Your task to perform on an android device: Open privacy settings Image 0: 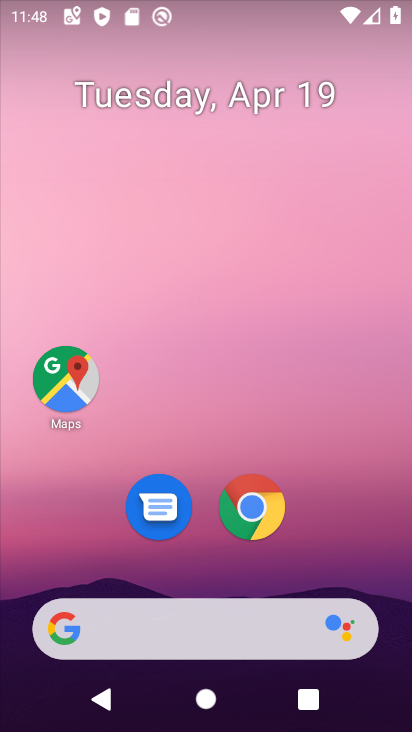
Step 0: drag from (201, 560) to (255, 31)
Your task to perform on an android device: Open privacy settings Image 1: 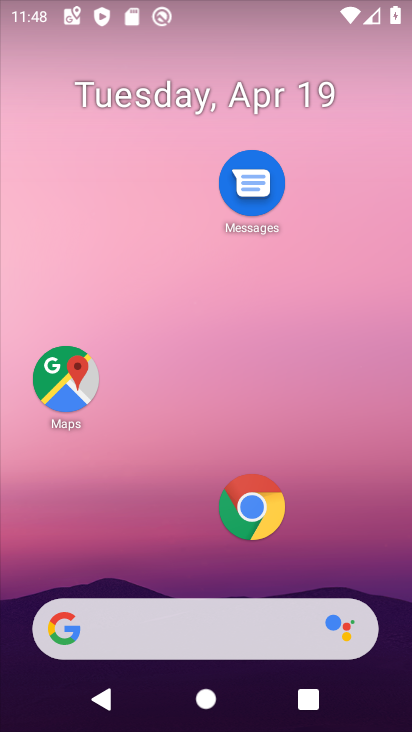
Step 1: drag from (171, 555) to (203, 54)
Your task to perform on an android device: Open privacy settings Image 2: 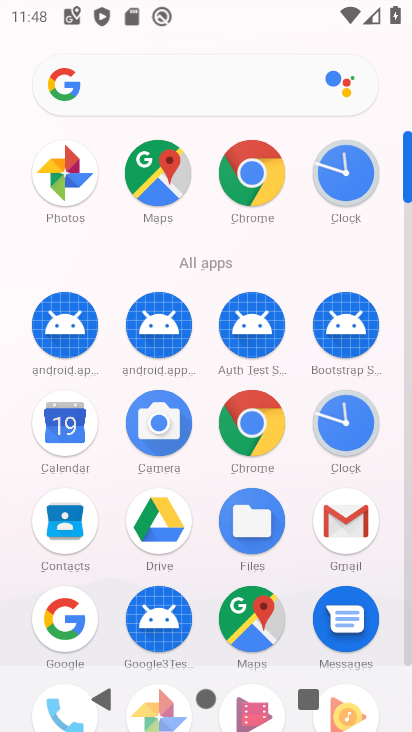
Step 2: drag from (301, 577) to (334, 259)
Your task to perform on an android device: Open privacy settings Image 3: 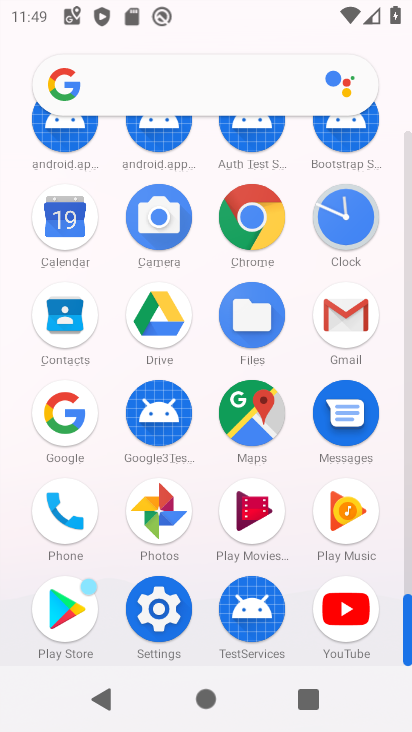
Step 3: click (158, 615)
Your task to perform on an android device: Open privacy settings Image 4: 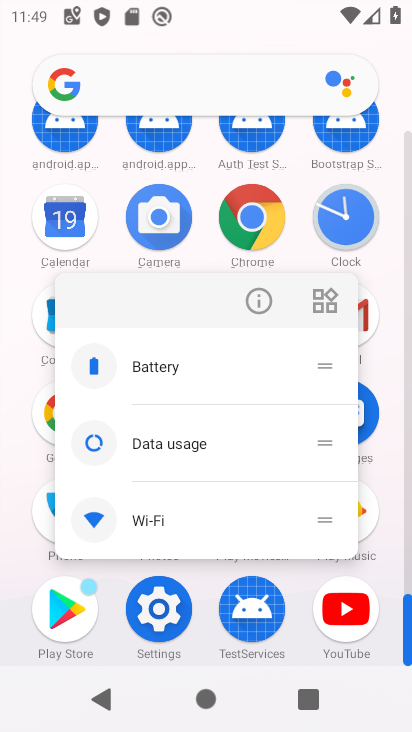
Step 4: click (158, 615)
Your task to perform on an android device: Open privacy settings Image 5: 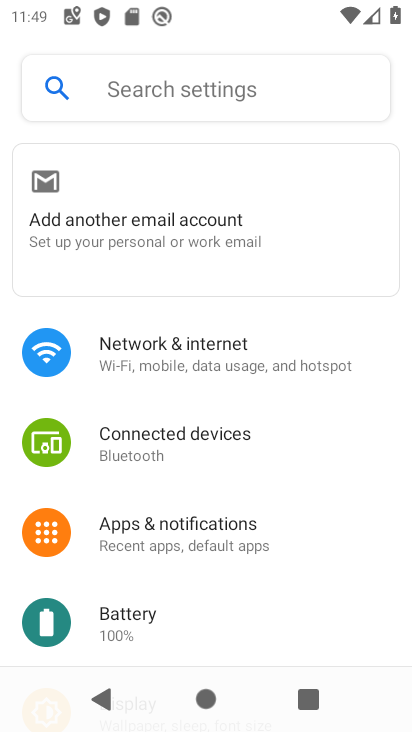
Step 5: drag from (183, 594) to (207, 469)
Your task to perform on an android device: Open privacy settings Image 6: 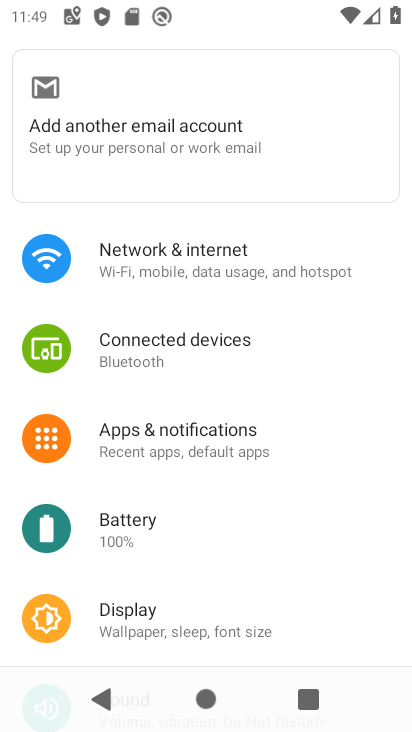
Step 6: drag from (203, 564) to (217, 478)
Your task to perform on an android device: Open privacy settings Image 7: 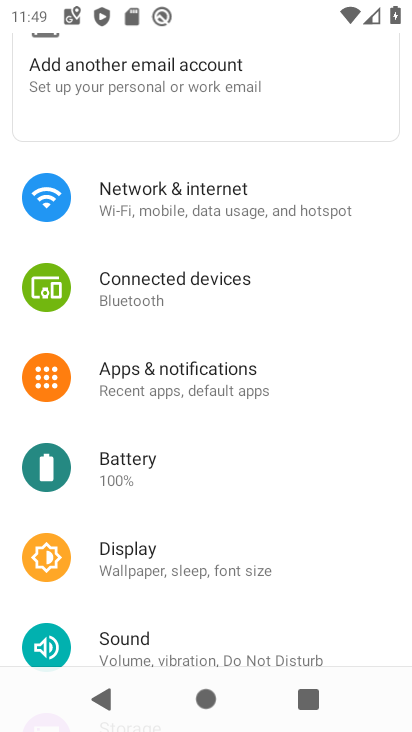
Step 7: drag from (197, 603) to (224, 495)
Your task to perform on an android device: Open privacy settings Image 8: 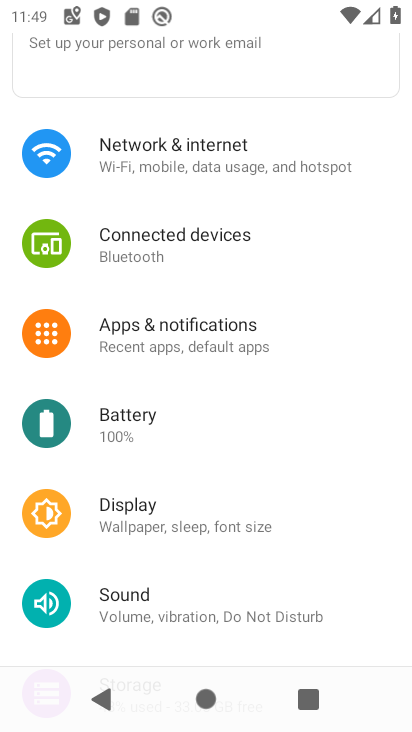
Step 8: drag from (197, 581) to (231, 451)
Your task to perform on an android device: Open privacy settings Image 9: 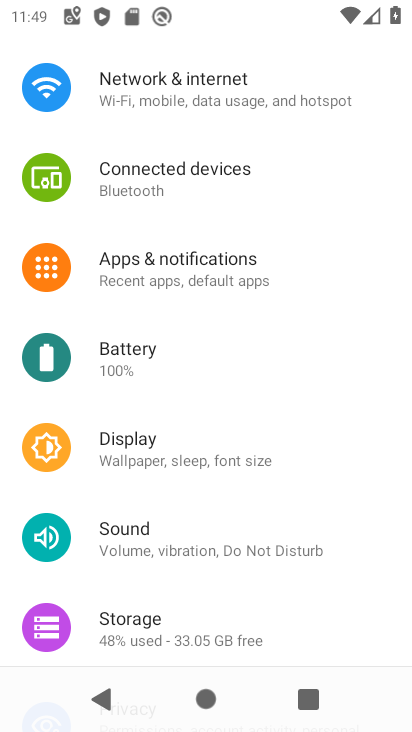
Step 9: drag from (200, 601) to (246, 474)
Your task to perform on an android device: Open privacy settings Image 10: 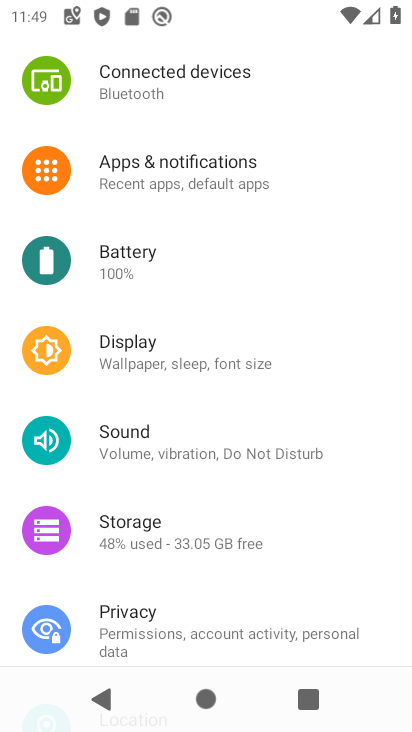
Step 10: drag from (188, 591) to (244, 464)
Your task to perform on an android device: Open privacy settings Image 11: 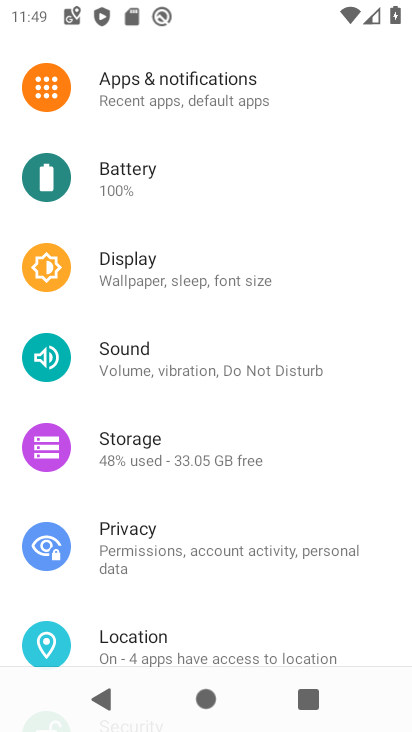
Step 11: click (241, 547)
Your task to perform on an android device: Open privacy settings Image 12: 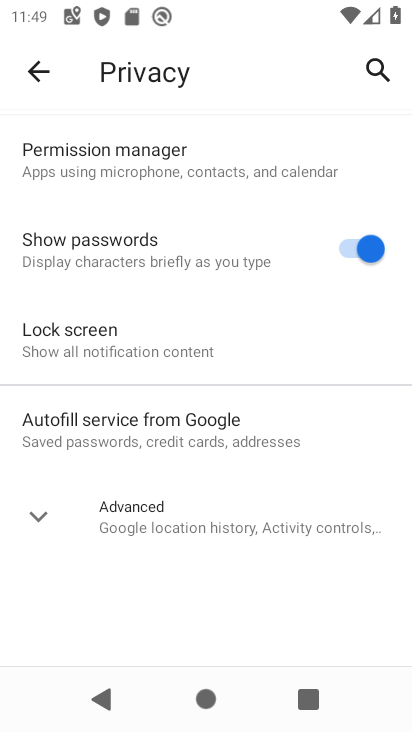
Step 12: task complete